Your task to perform on an android device: set the timer Image 0: 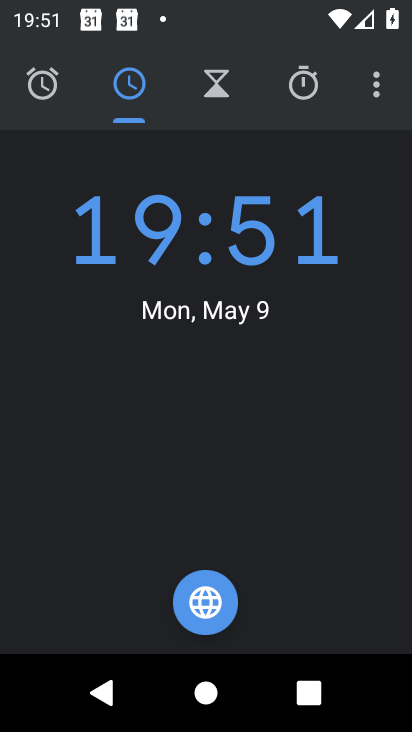
Step 0: press home button
Your task to perform on an android device: set the timer Image 1: 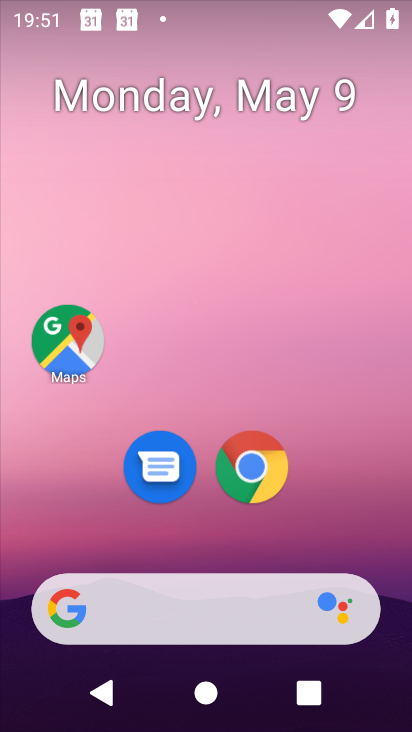
Step 1: drag from (344, 484) to (331, 127)
Your task to perform on an android device: set the timer Image 2: 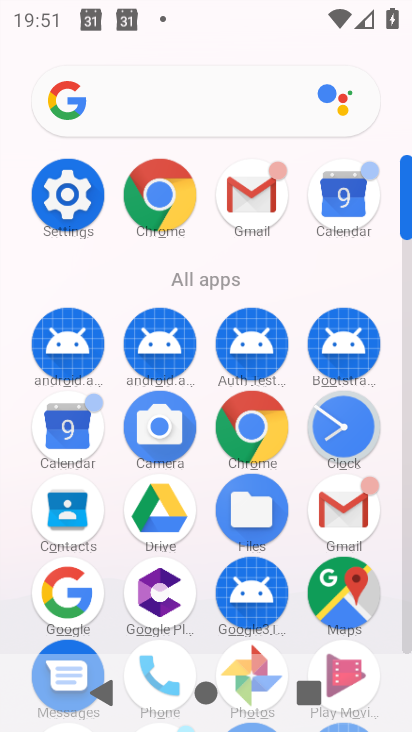
Step 2: click (263, 198)
Your task to perform on an android device: set the timer Image 3: 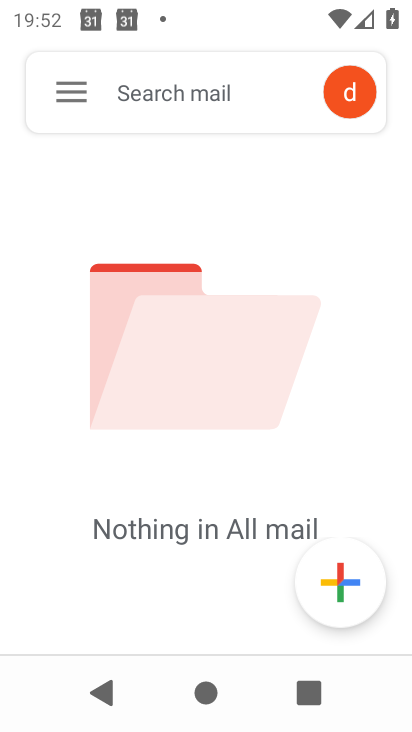
Step 3: press home button
Your task to perform on an android device: set the timer Image 4: 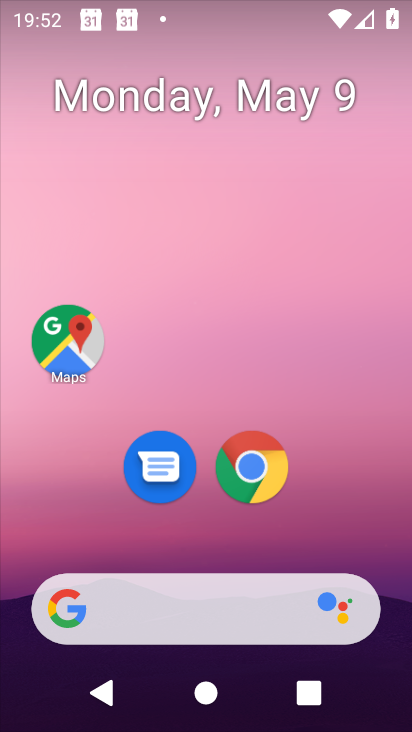
Step 4: drag from (360, 492) to (320, 28)
Your task to perform on an android device: set the timer Image 5: 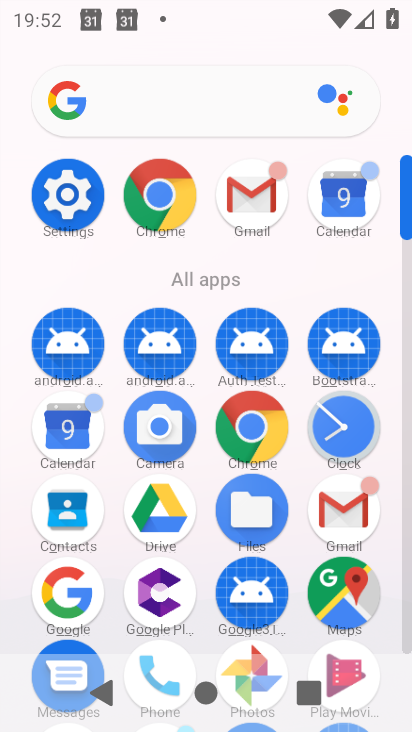
Step 5: click (331, 436)
Your task to perform on an android device: set the timer Image 6: 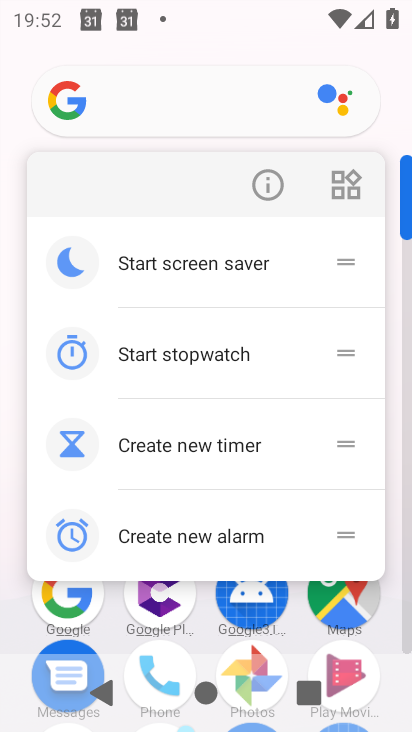
Step 6: click (263, 79)
Your task to perform on an android device: set the timer Image 7: 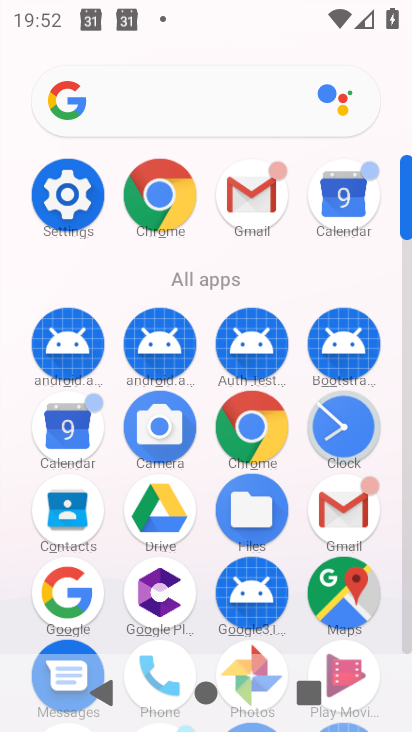
Step 7: click (347, 418)
Your task to perform on an android device: set the timer Image 8: 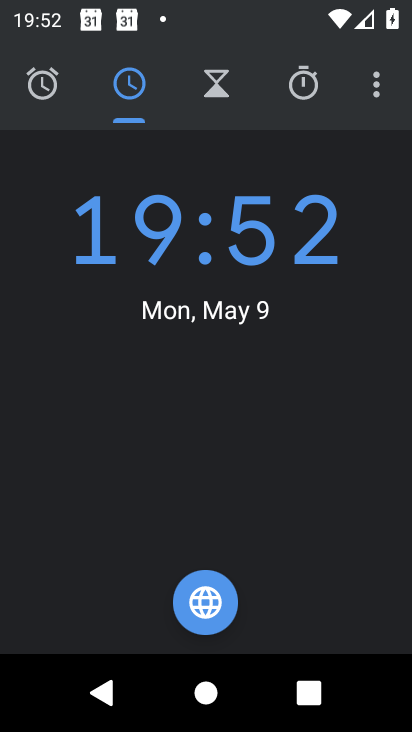
Step 8: click (297, 107)
Your task to perform on an android device: set the timer Image 9: 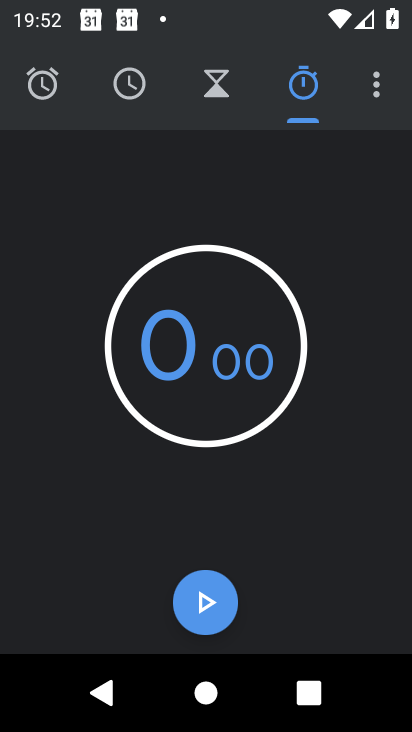
Step 9: click (198, 600)
Your task to perform on an android device: set the timer Image 10: 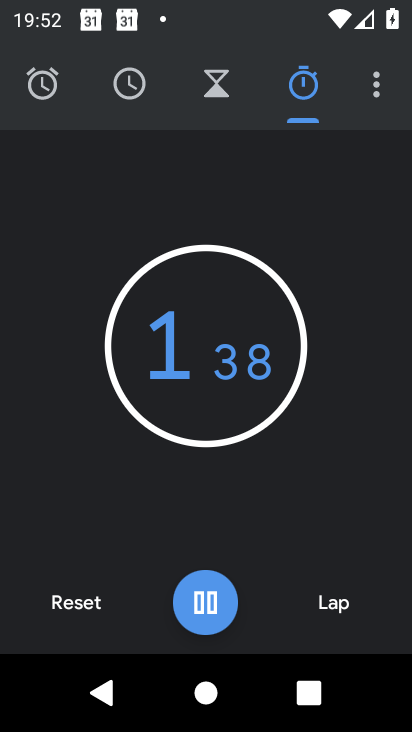
Step 10: click (198, 598)
Your task to perform on an android device: set the timer Image 11: 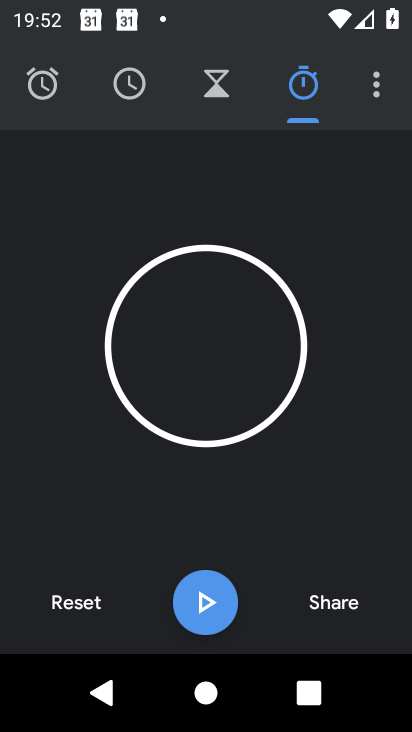
Step 11: task complete